Your task to perform on an android device: Go to Google maps Image 0: 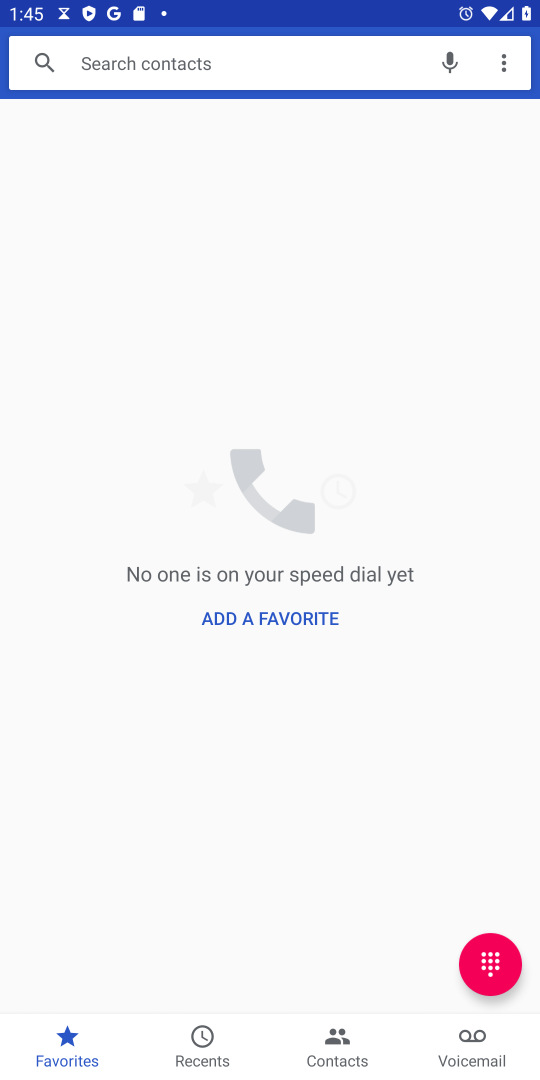
Step 0: press home button
Your task to perform on an android device: Go to Google maps Image 1: 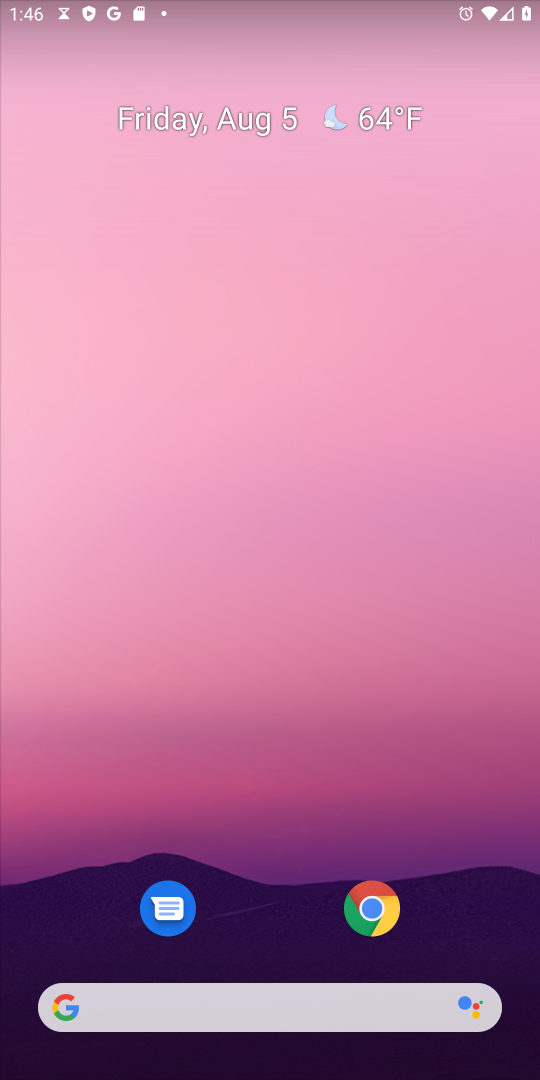
Step 1: drag from (235, 931) to (301, 21)
Your task to perform on an android device: Go to Google maps Image 2: 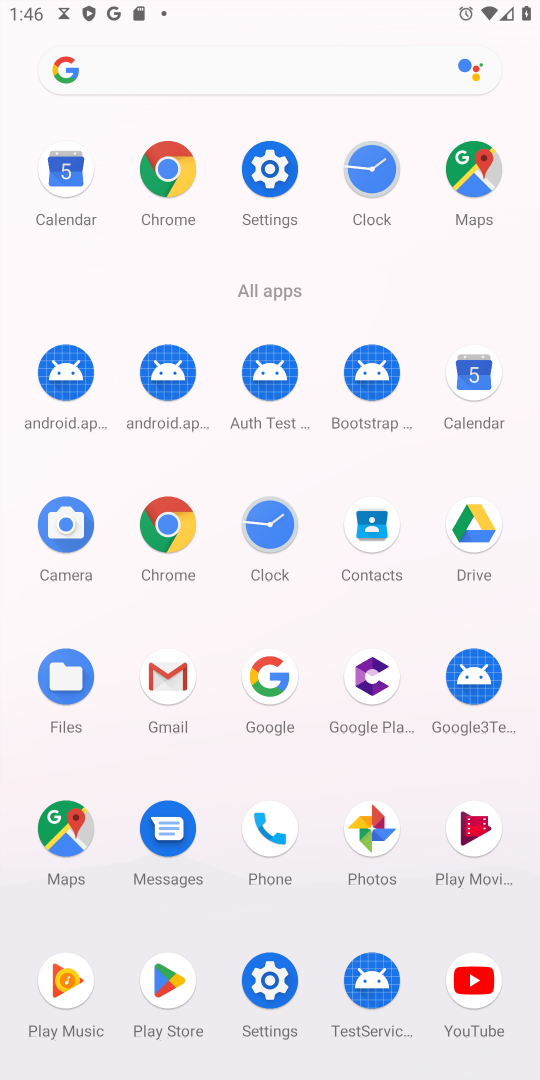
Step 2: click (44, 827)
Your task to perform on an android device: Go to Google maps Image 3: 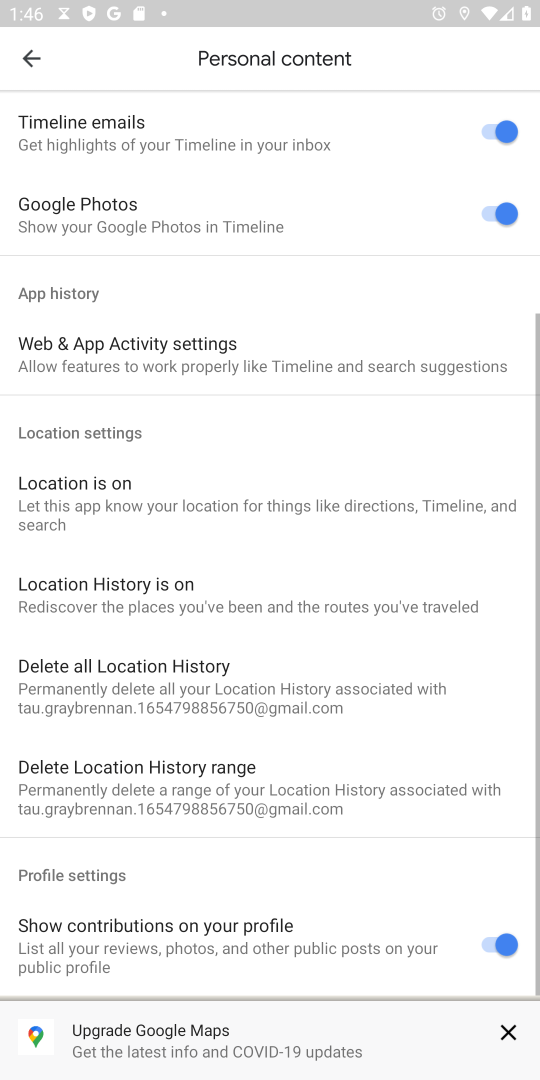
Step 3: task complete